Your task to perform on an android device: Open maps Image 0: 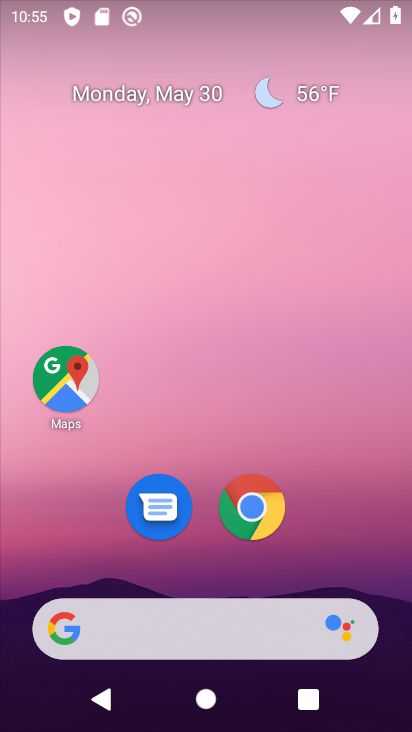
Step 0: click (59, 379)
Your task to perform on an android device: Open maps Image 1: 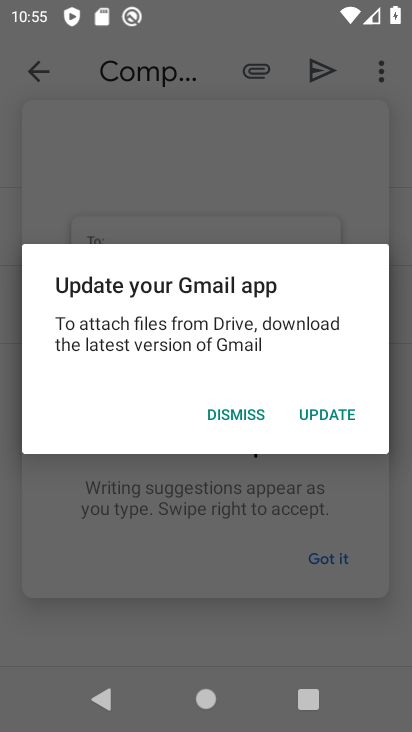
Step 1: click (347, 418)
Your task to perform on an android device: Open maps Image 2: 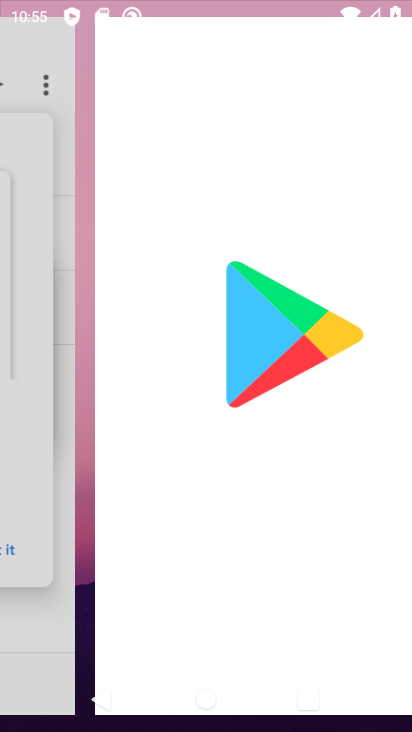
Step 2: press home button
Your task to perform on an android device: Open maps Image 3: 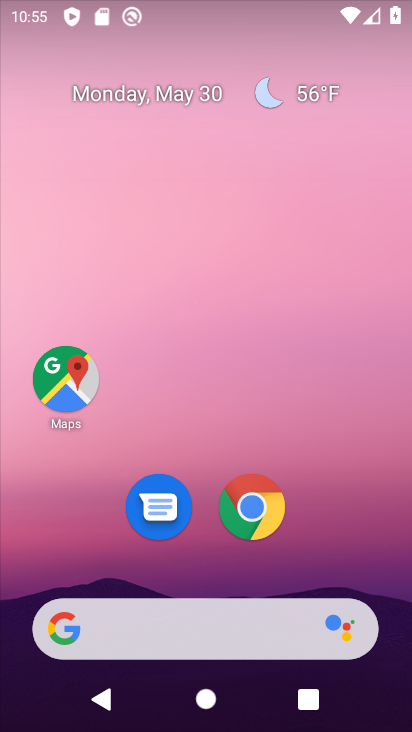
Step 3: click (50, 389)
Your task to perform on an android device: Open maps Image 4: 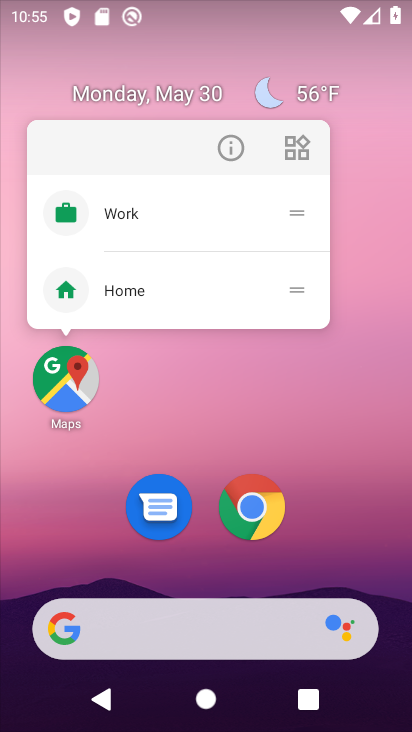
Step 4: click (60, 386)
Your task to perform on an android device: Open maps Image 5: 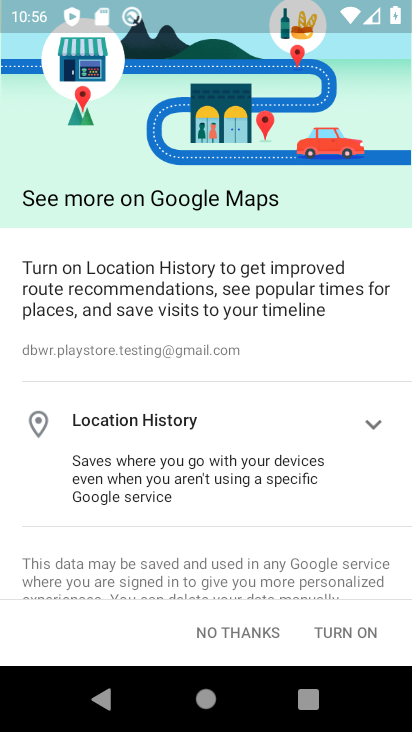
Step 5: click (261, 632)
Your task to perform on an android device: Open maps Image 6: 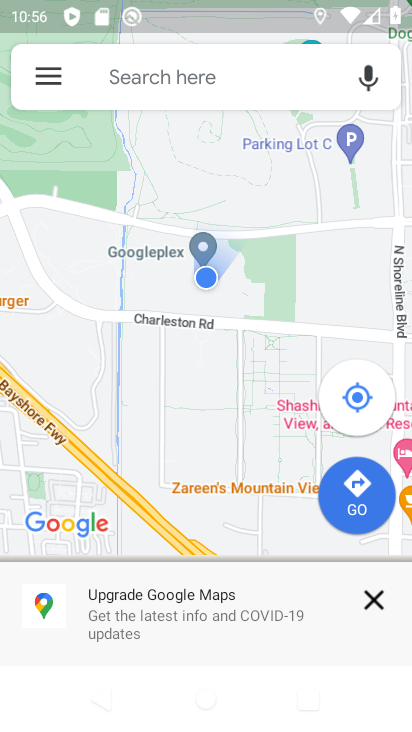
Step 6: click (378, 603)
Your task to perform on an android device: Open maps Image 7: 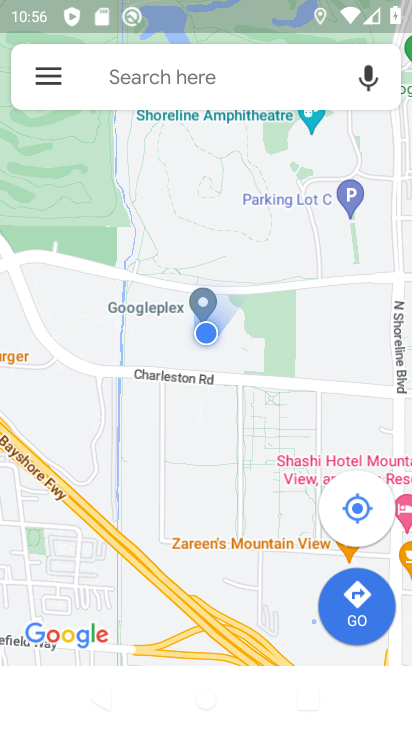
Step 7: task complete